Your task to perform on an android device: Go to ESPN.com Image 0: 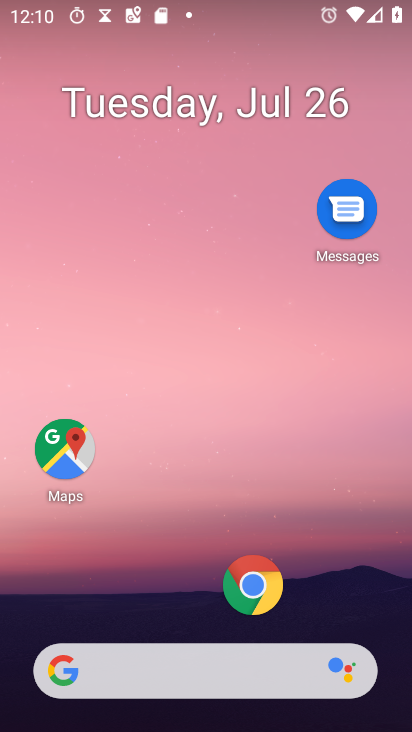
Step 0: press home button
Your task to perform on an android device: Go to ESPN.com Image 1: 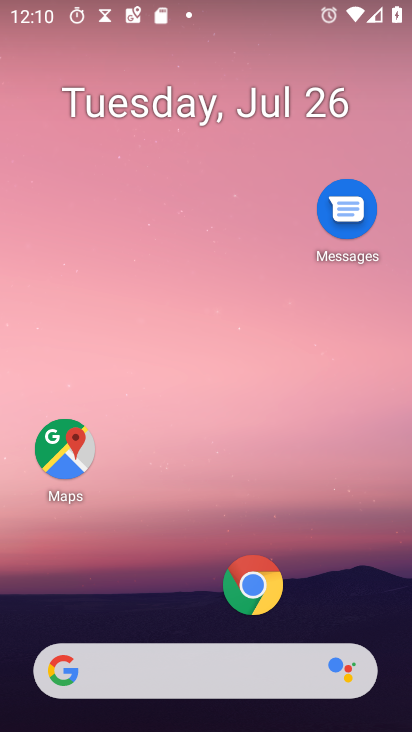
Step 1: click (257, 584)
Your task to perform on an android device: Go to ESPN.com Image 2: 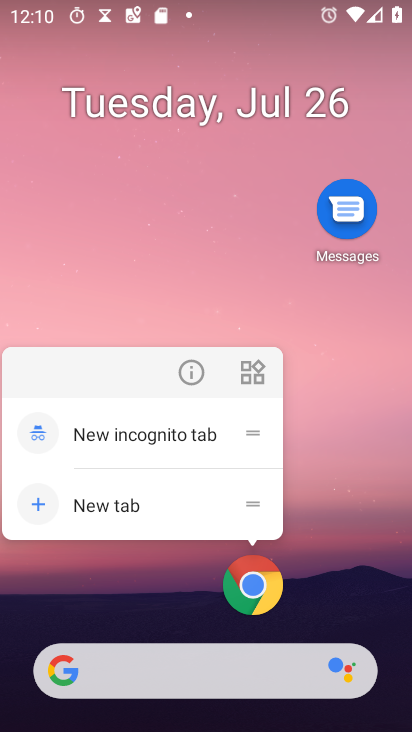
Step 2: click (235, 602)
Your task to perform on an android device: Go to ESPN.com Image 3: 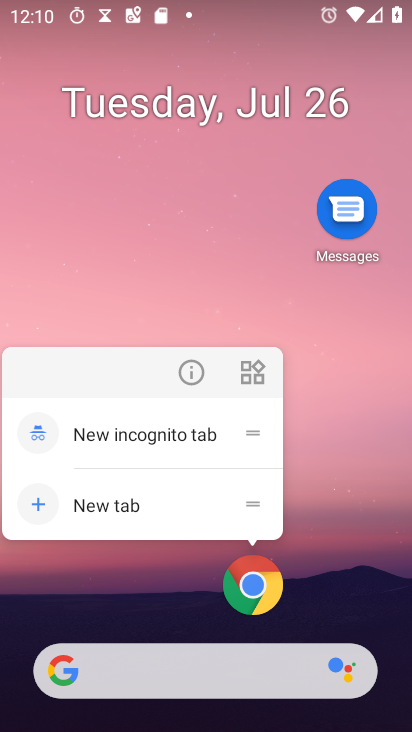
Step 3: click (256, 593)
Your task to perform on an android device: Go to ESPN.com Image 4: 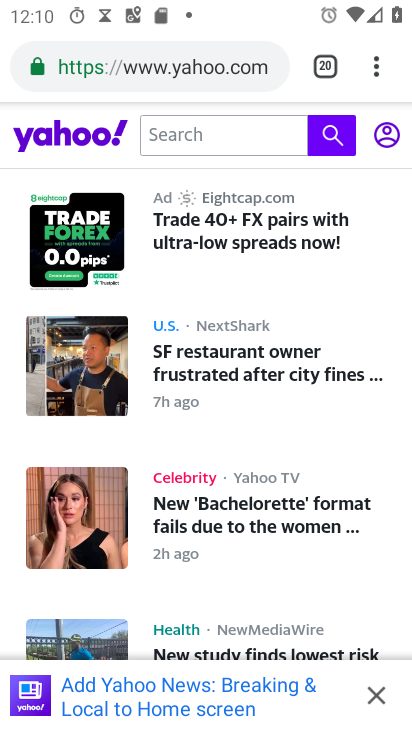
Step 4: drag from (372, 64) to (201, 129)
Your task to perform on an android device: Go to ESPN.com Image 5: 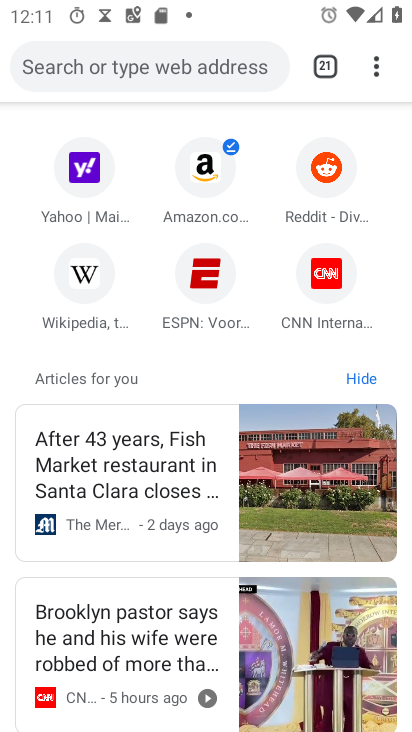
Step 5: click (199, 289)
Your task to perform on an android device: Go to ESPN.com Image 6: 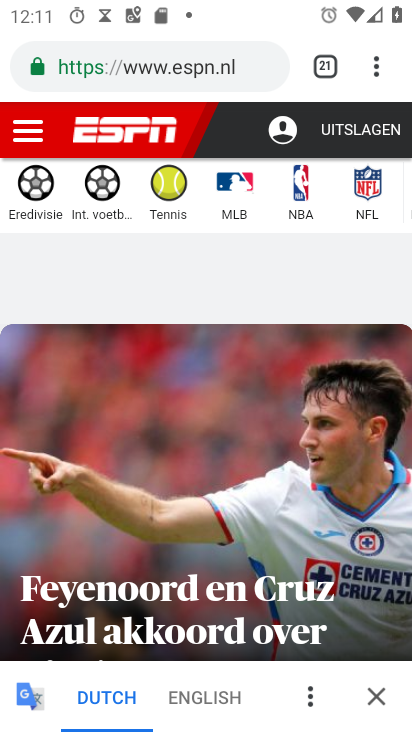
Step 6: task complete